Your task to perform on an android device: Go to Yahoo.com Image 0: 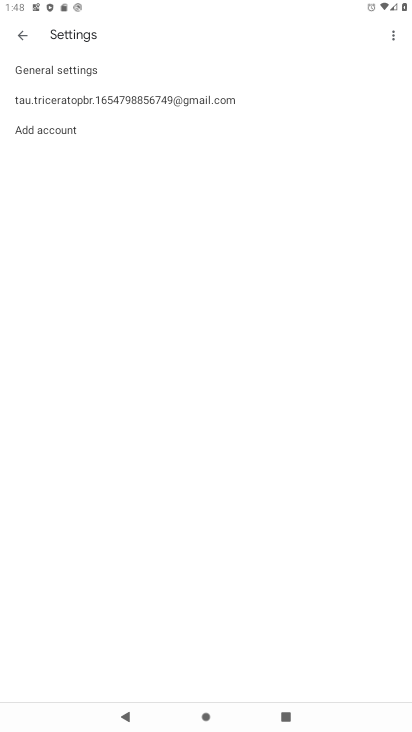
Step 0: press home button
Your task to perform on an android device: Go to Yahoo.com Image 1: 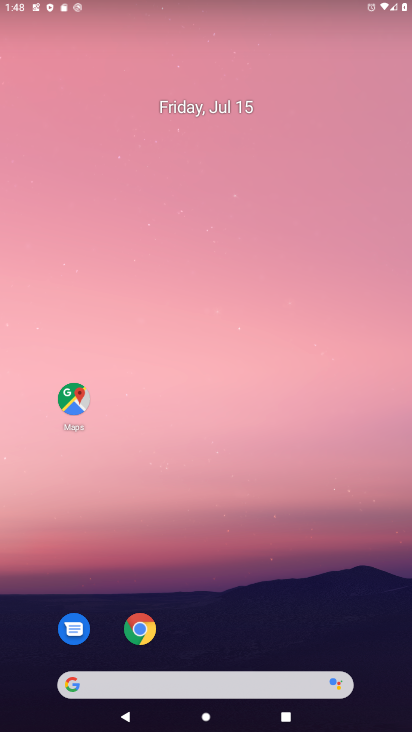
Step 1: drag from (326, 596) to (323, 145)
Your task to perform on an android device: Go to Yahoo.com Image 2: 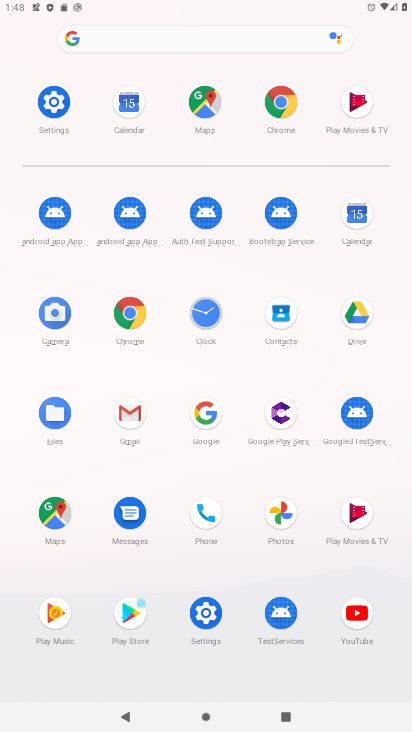
Step 2: click (281, 101)
Your task to perform on an android device: Go to Yahoo.com Image 3: 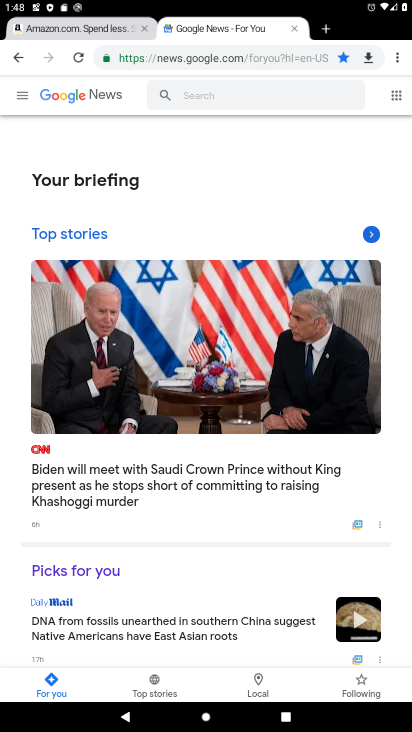
Step 3: click (288, 56)
Your task to perform on an android device: Go to Yahoo.com Image 4: 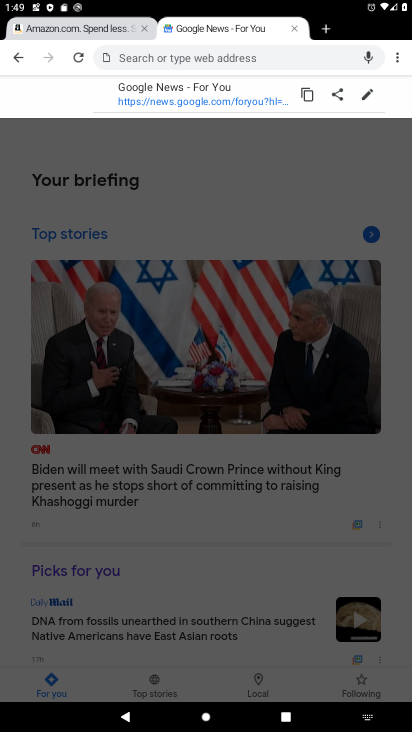
Step 4: type "yahoo.com"
Your task to perform on an android device: Go to Yahoo.com Image 5: 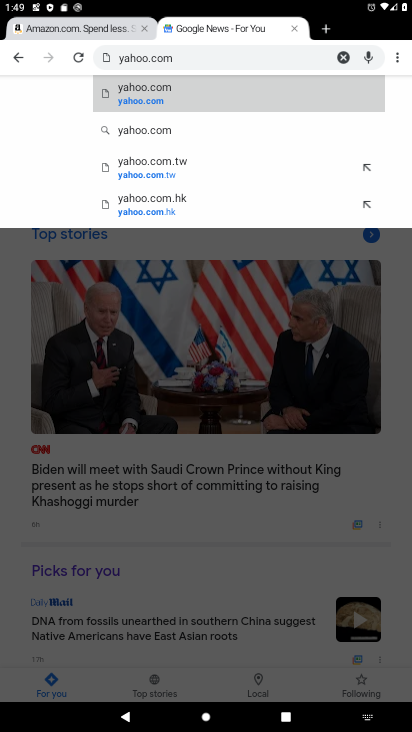
Step 5: click (179, 90)
Your task to perform on an android device: Go to Yahoo.com Image 6: 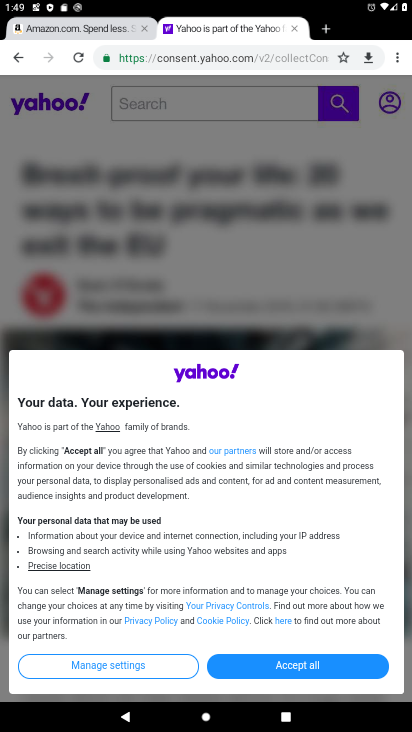
Step 6: task complete